Your task to perform on an android device: open device folders in google photos Image 0: 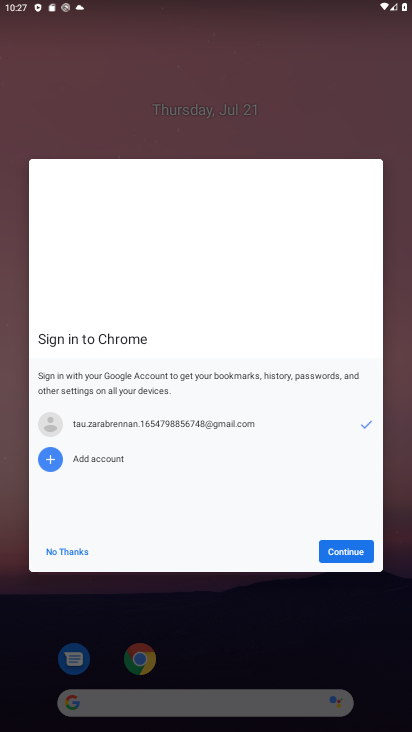
Step 0: click (355, 557)
Your task to perform on an android device: open device folders in google photos Image 1: 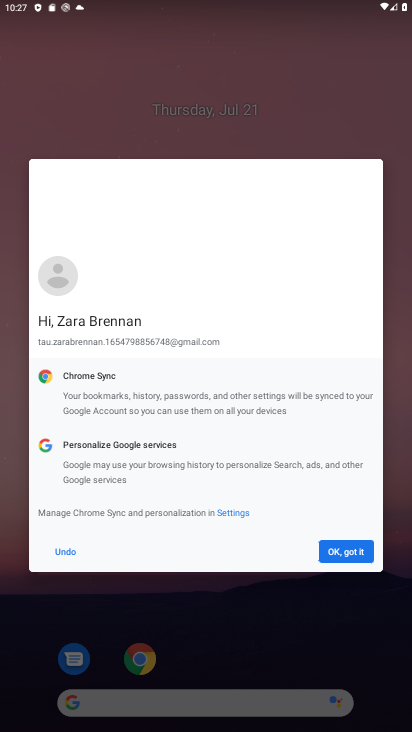
Step 1: click (337, 549)
Your task to perform on an android device: open device folders in google photos Image 2: 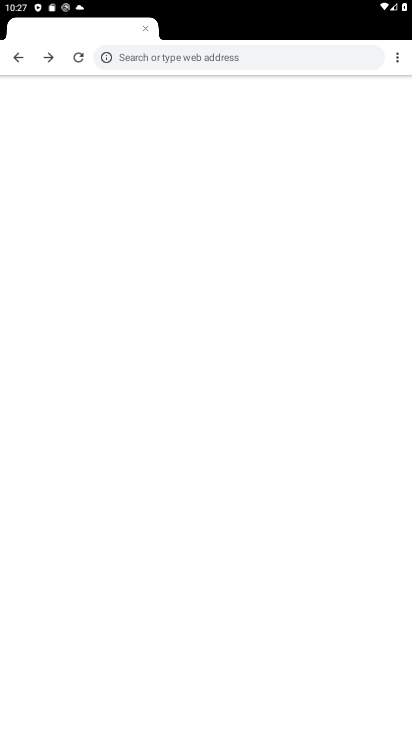
Step 2: task complete